Your task to perform on an android device: turn off smart reply in the gmail app Image 0: 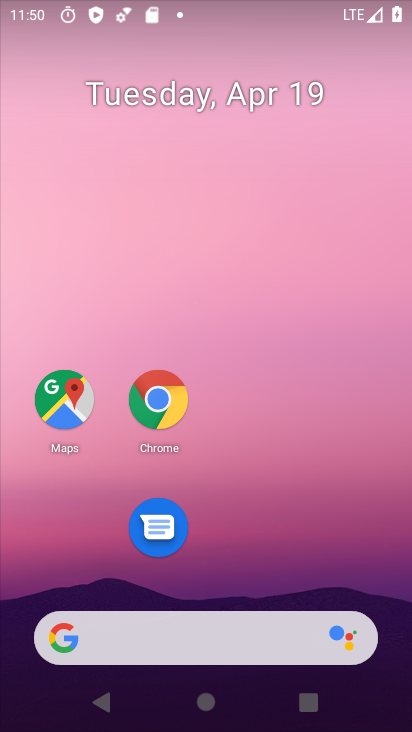
Step 0: drag from (261, 665) to (205, 239)
Your task to perform on an android device: turn off smart reply in the gmail app Image 1: 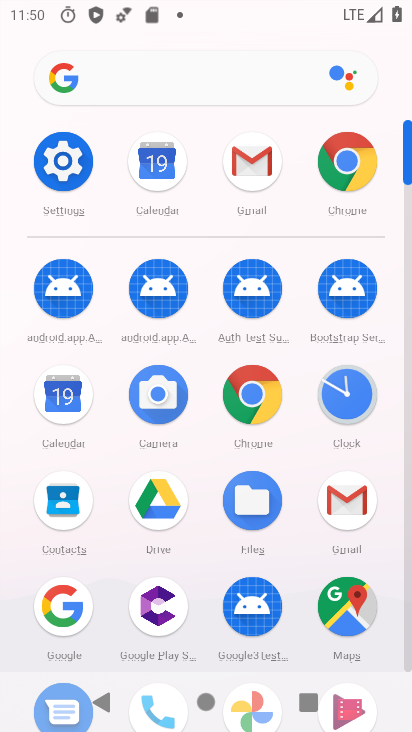
Step 1: click (255, 165)
Your task to perform on an android device: turn off smart reply in the gmail app Image 2: 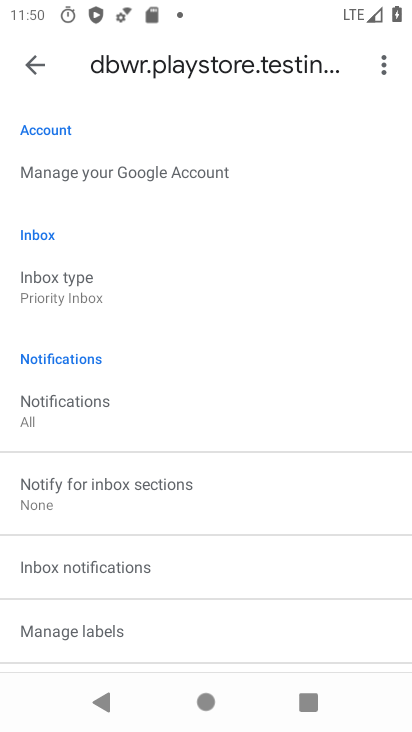
Step 2: drag from (157, 534) to (118, 203)
Your task to perform on an android device: turn off smart reply in the gmail app Image 3: 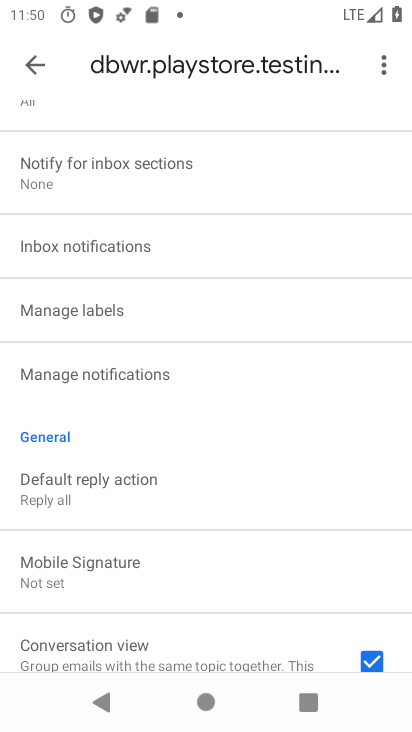
Step 3: drag from (182, 548) to (218, 257)
Your task to perform on an android device: turn off smart reply in the gmail app Image 4: 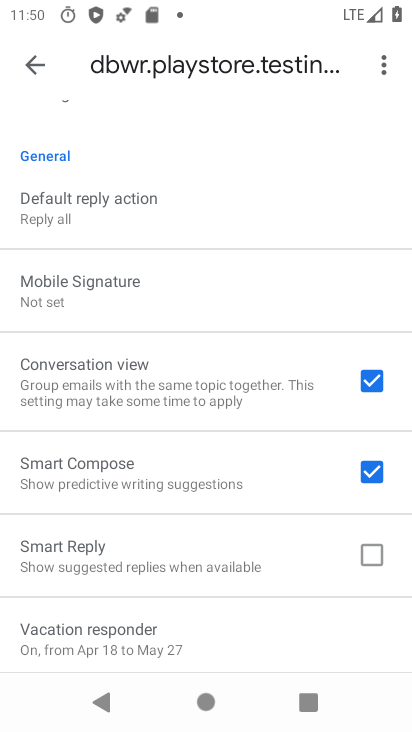
Step 4: click (369, 555)
Your task to perform on an android device: turn off smart reply in the gmail app Image 5: 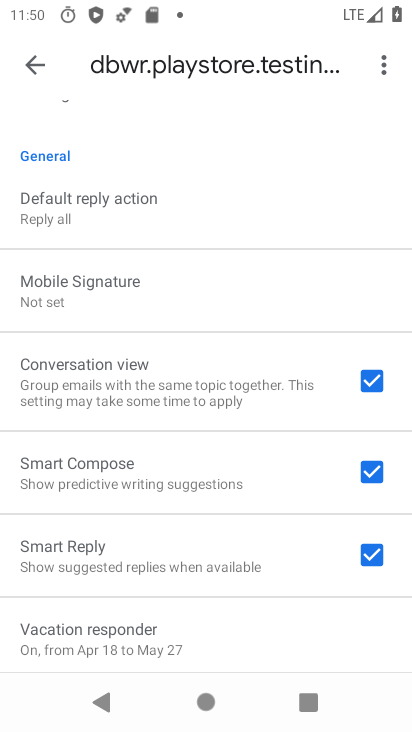
Step 5: click (369, 555)
Your task to perform on an android device: turn off smart reply in the gmail app Image 6: 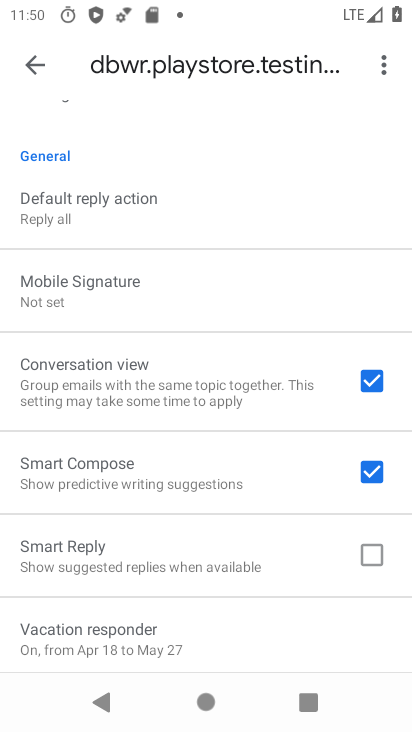
Step 6: task complete